Your task to perform on an android device: Go to sound settings Image 0: 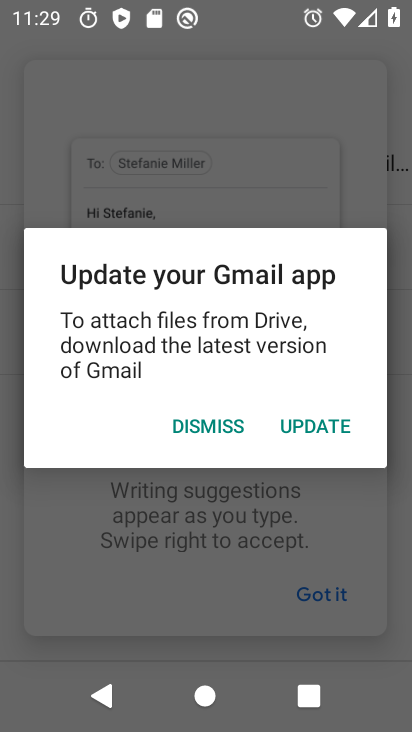
Step 0: press home button
Your task to perform on an android device: Go to sound settings Image 1: 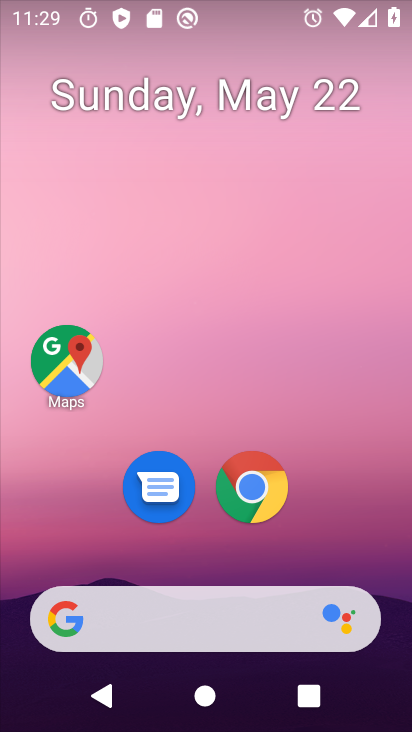
Step 1: drag from (338, 517) to (331, 242)
Your task to perform on an android device: Go to sound settings Image 2: 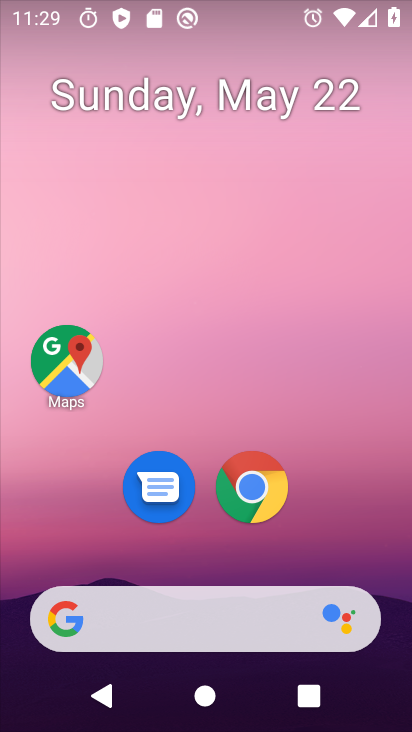
Step 2: drag from (339, 551) to (343, 240)
Your task to perform on an android device: Go to sound settings Image 3: 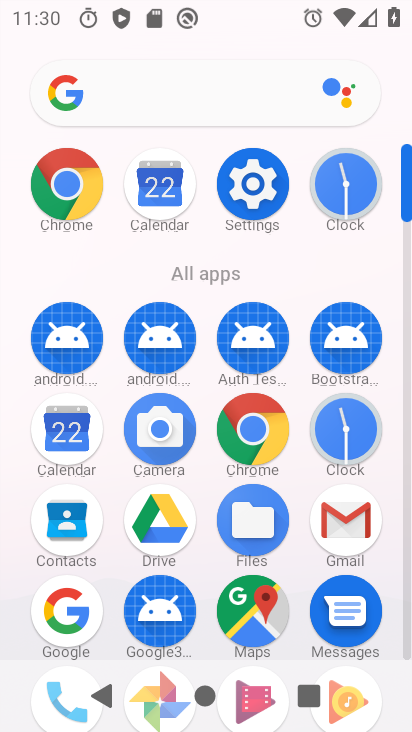
Step 3: click (280, 196)
Your task to perform on an android device: Go to sound settings Image 4: 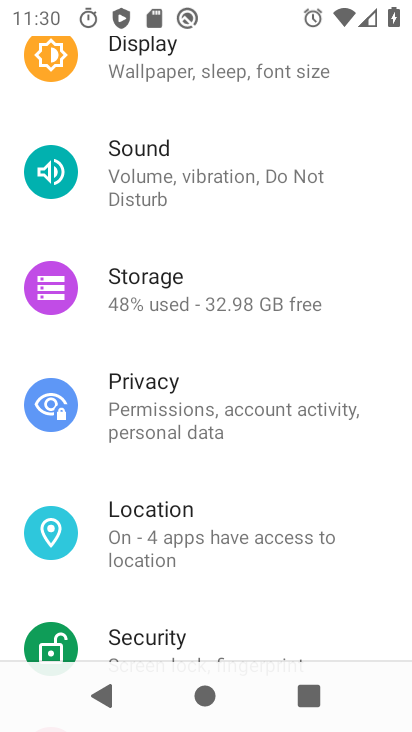
Step 4: drag from (279, 217) to (261, 404)
Your task to perform on an android device: Go to sound settings Image 5: 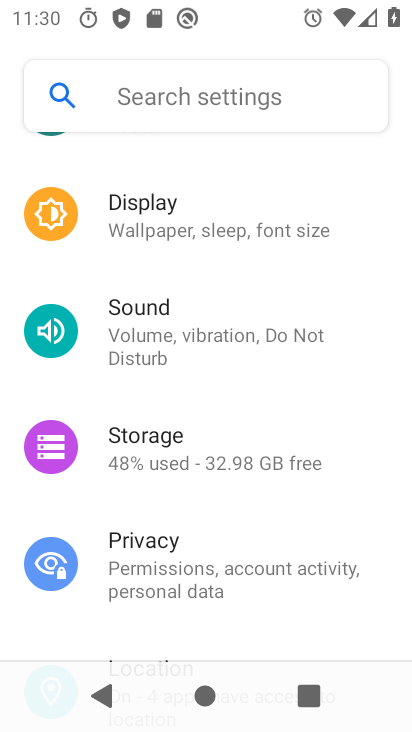
Step 5: click (242, 344)
Your task to perform on an android device: Go to sound settings Image 6: 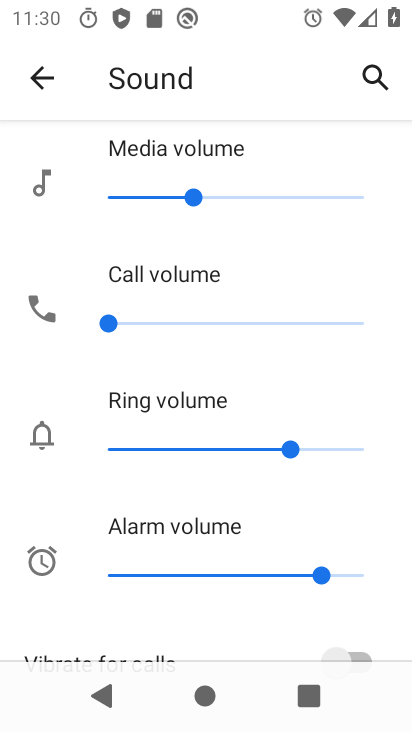
Step 6: task complete